Your task to perform on an android device: turn on location history Image 0: 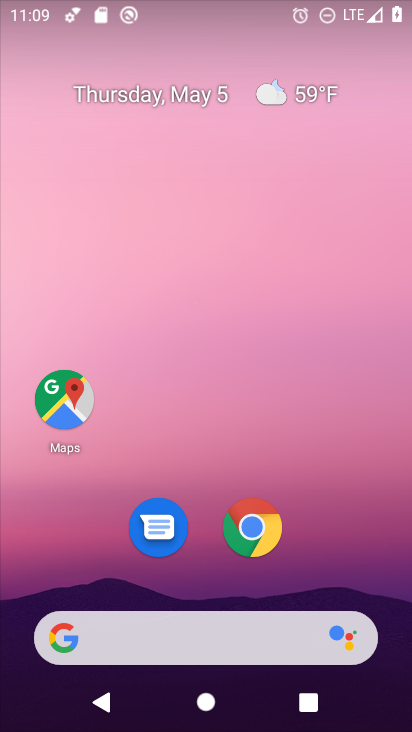
Step 0: drag from (247, 696) to (289, 16)
Your task to perform on an android device: turn on location history Image 1: 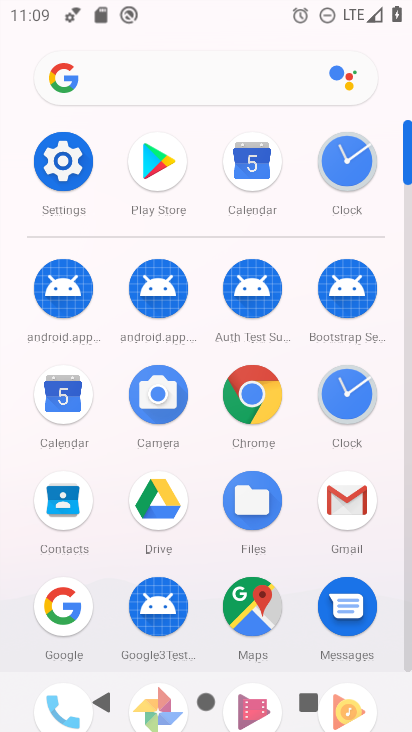
Step 1: click (73, 161)
Your task to perform on an android device: turn on location history Image 2: 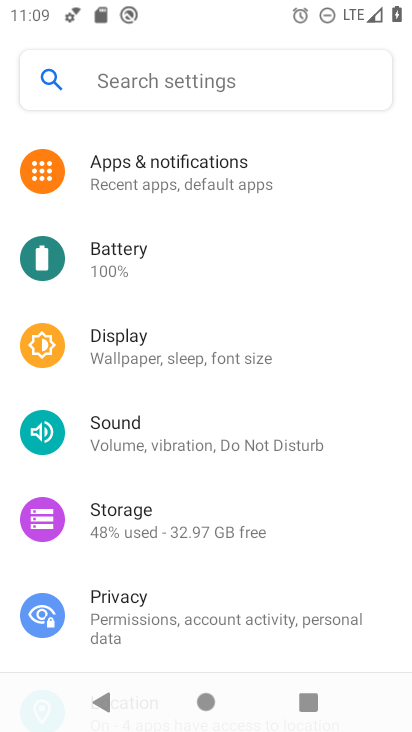
Step 2: drag from (240, 608) to (239, 59)
Your task to perform on an android device: turn on location history Image 3: 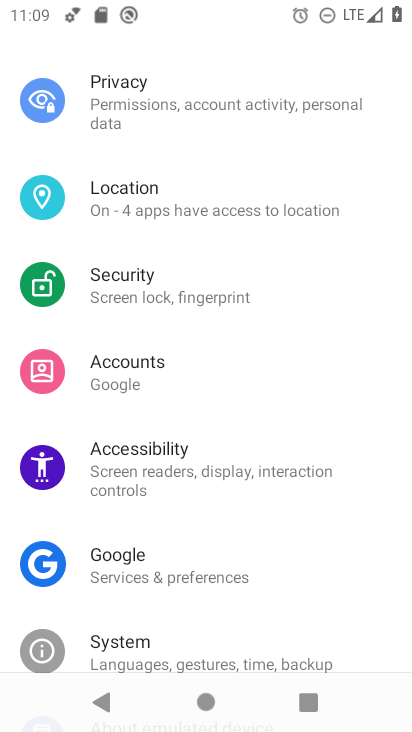
Step 3: click (213, 213)
Your task to perform on an android device: turn on location history Image 4: 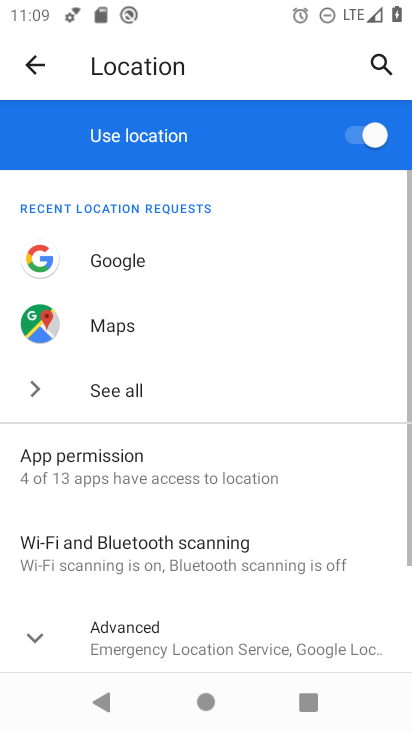
Step 4: click (231, 655)
Your task to perform on an android device: turn on location history Image 5: 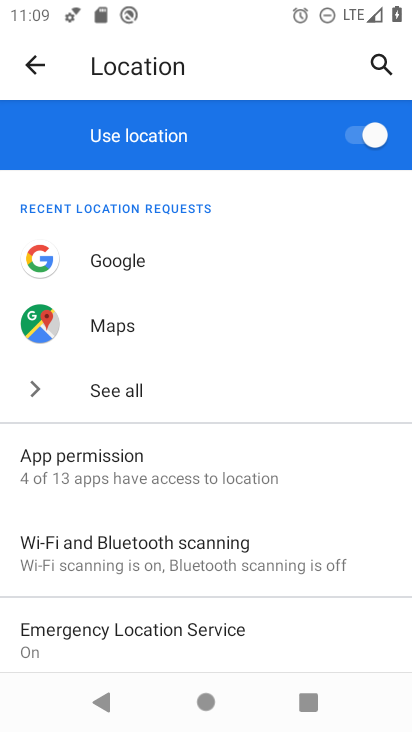
Step 5: drag from (273, 610) to (228, 187)
Your task to perform on an android device: turn on location history Image 6: 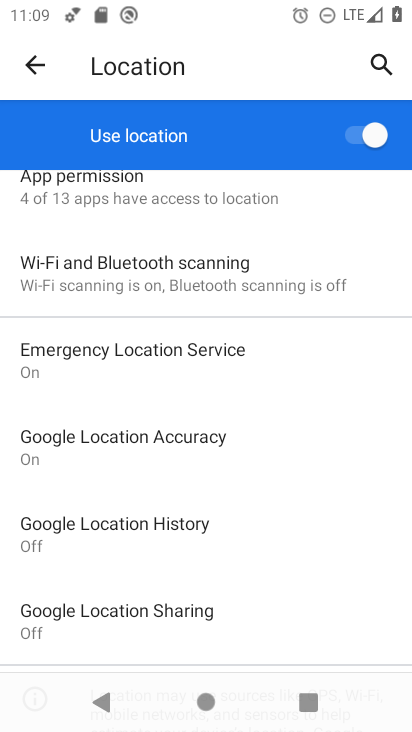
Step 6: click (144, 526)
Your task to perform on an android device: turn on location history Image 7: 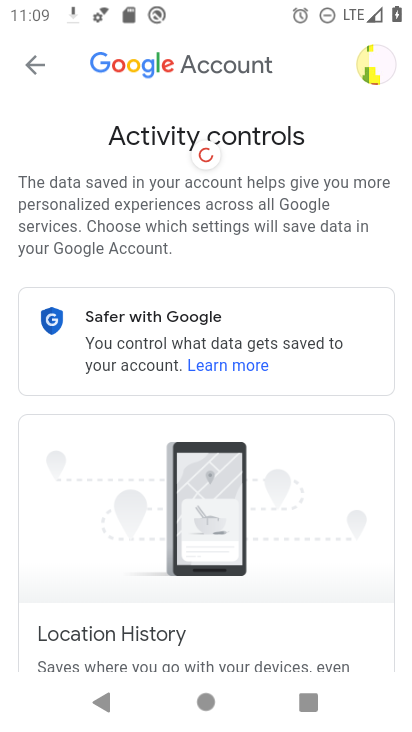
Step 7: drag from (293, 596) to (241, 7)
Your task to perform on an android device: turn on location history Image 8: 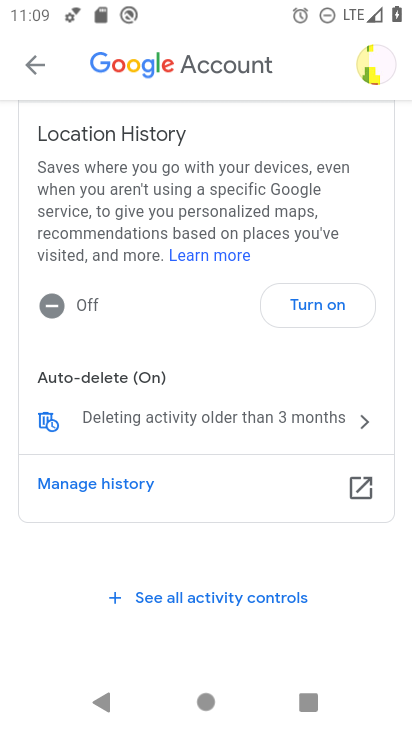
Step 8: click (327, 315)
Your task to perform on an android device: turn on location history Image 9: 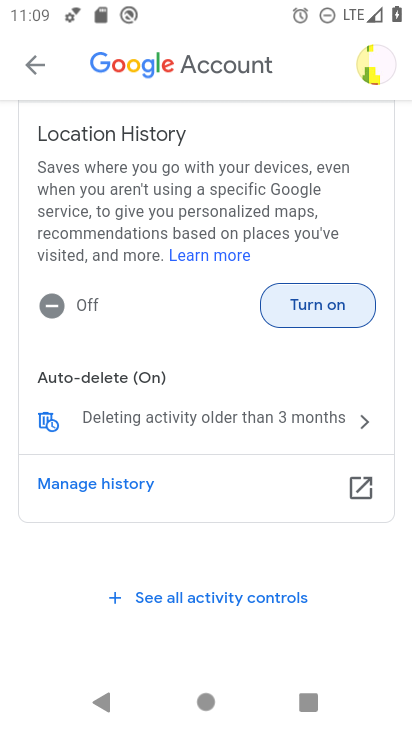
Step 9: click (323, 313)
Your task to perform on an android device: turn on location history Image 10: 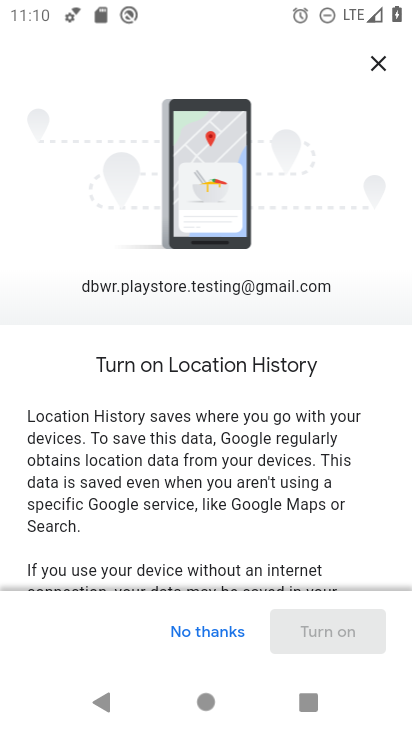
Step 10: drag from (326, 581) to (259, 75)
Your task to perform on an android device: turn on location history Image 11: 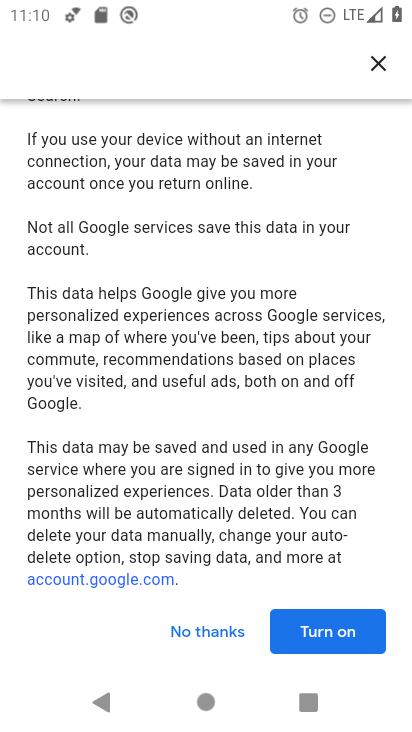
Step 11: click (338, 635)
Your task to perform on an android device: turn on location history Image 12: 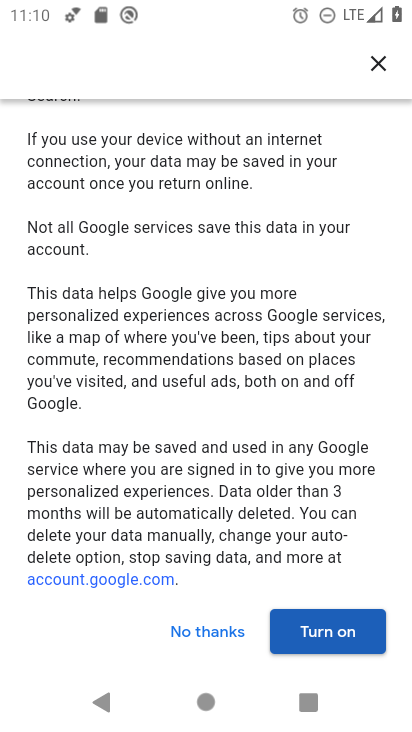
Step 12: click (307, 635)
Your task to perform on an android device: turn on location history Image 13: 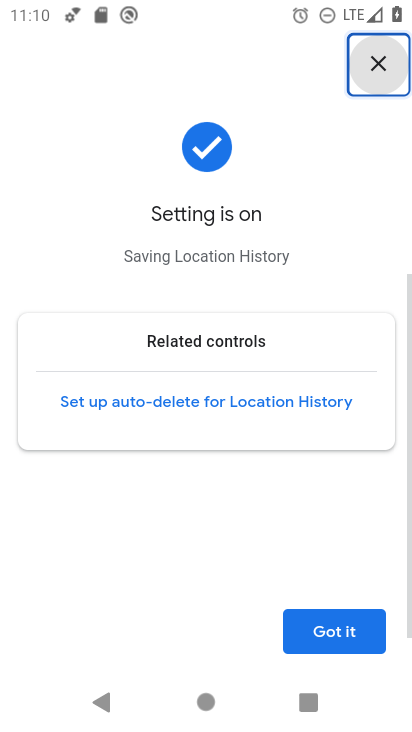
Step 13: click (350, 632)
Your task to perform on an android device: turn on location history Image 14: 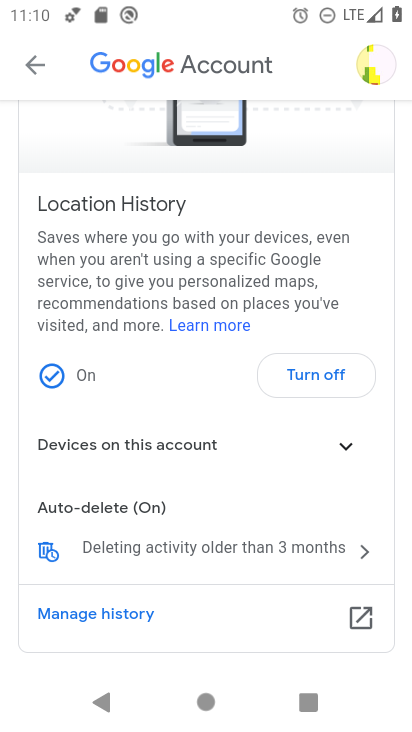
Step 14: task complete